Your task to perform on an android device: Show the shopping cart on newegg. Search for "logitech g pro" on newegg, select the first entry, add it to the cart, then select checkout. Image 0: 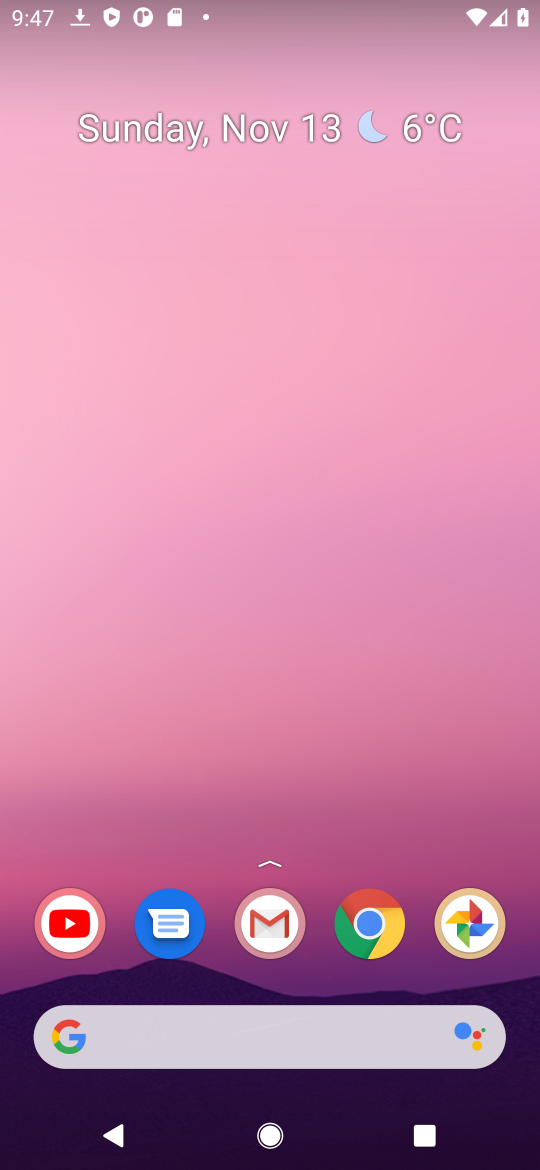
Step 0: click (367, 920)
Your task to perform on an android device: Show the shopping cart on newegg. Search for "logitech g pro" on newegg, select the first entry, add it to the cart, then select checkout. Image 1: 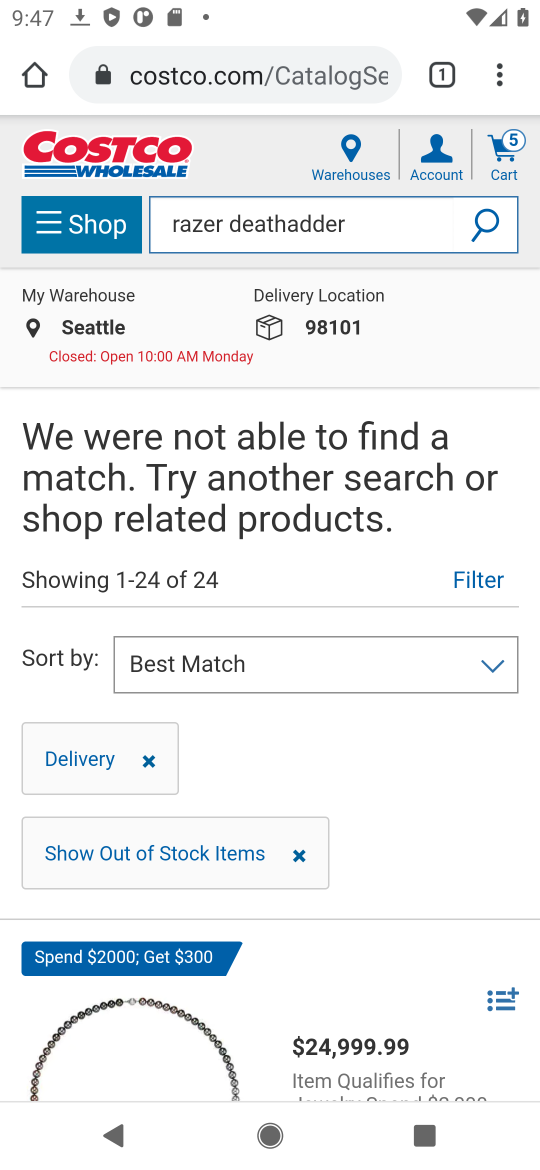
Step 1: click (270, 64)
Your task to perform on an android device: Show the shopping cart on newegg. Search for "logitech g pro" on newegg, select the first entry, add it to the cart, then select checkout. Image 2: 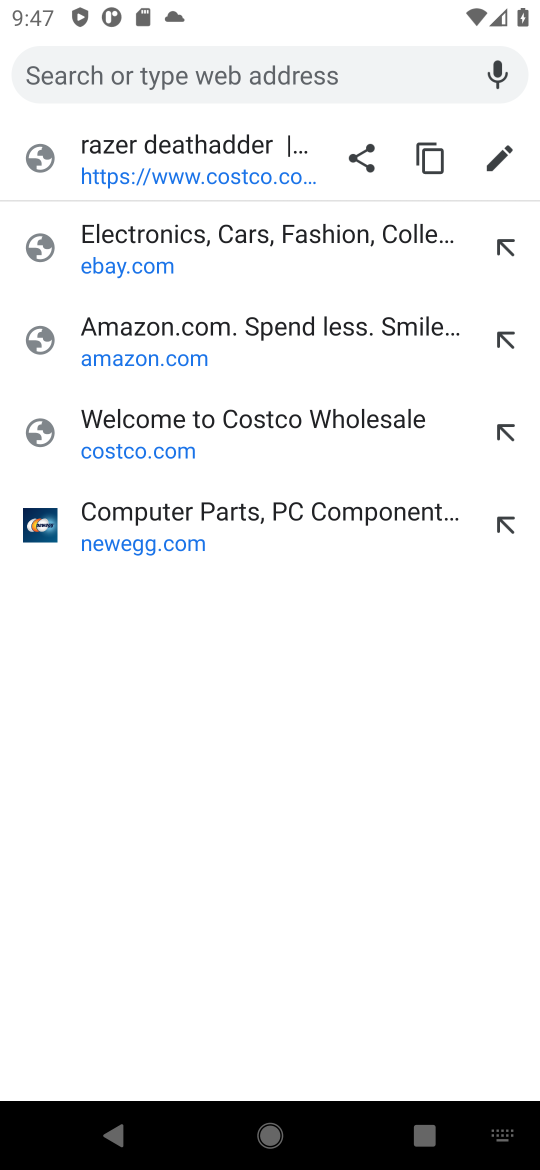
Step 2: click (265, 511)
Your task to perform on an android device: Show the shopping cart on newegg. Search for "logitech g pro" on newegg, select the first entry, add it to the cart, then select checkout. Image 3: 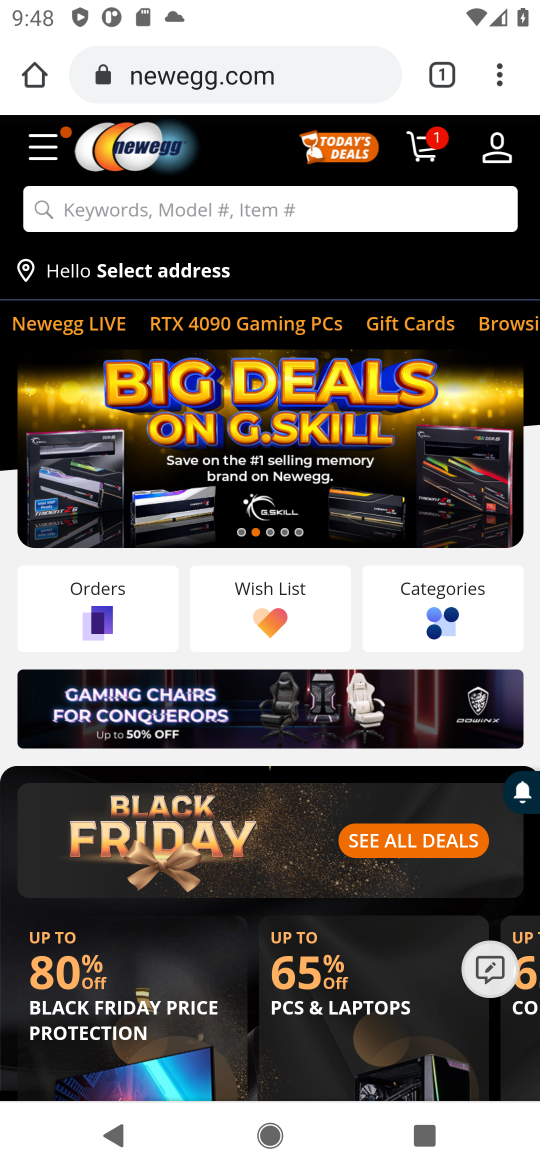
Step 3: click (184, 208)
Your task to perform on an android device: Show the shopping cart on newegg. Search for "logitech g pro" on newegg, select the first entry, add it to the cart, then select checkout. Image 4: 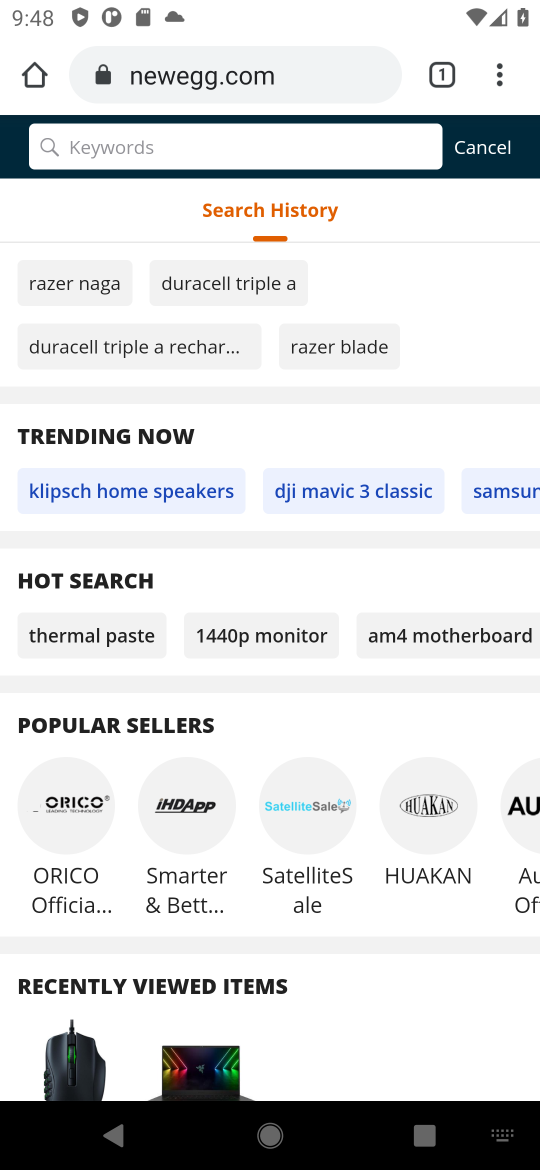
Step 4: type "logitech g pro"
Your task to perform on an android device: Show the shopping cart on newegg. Search for "logitech g pro" on newegg, select the first entry, add it to the cart, then select checkout. Image 5: 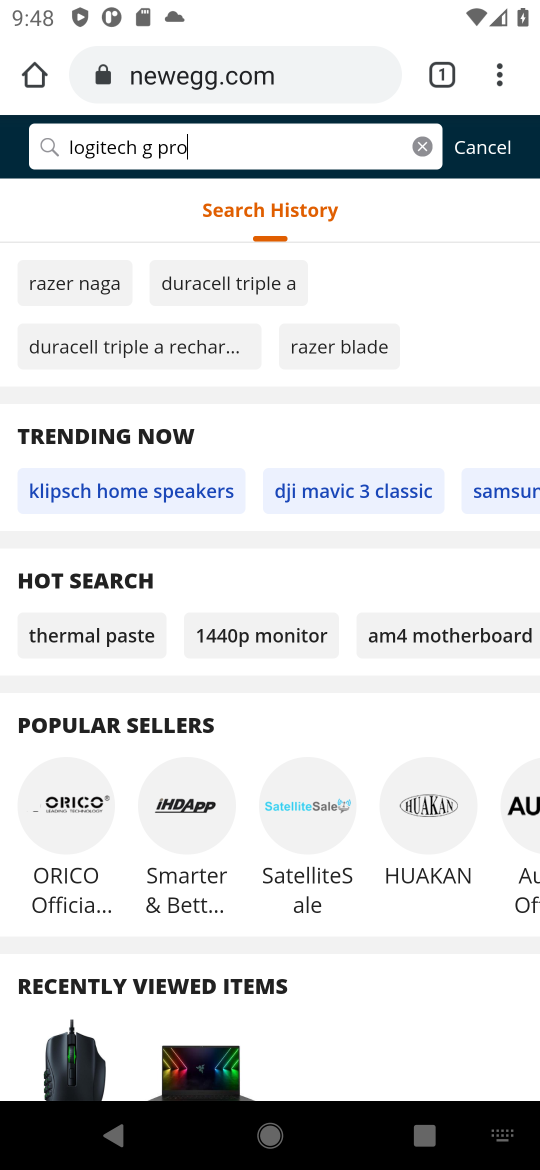
Step 5: press enter
Your task to perform on an android device: Show the shopping cart on newegg. Search for "logitech g pro" on newegg, select the first entry, add it to the cart, then select checkout. Image 6: 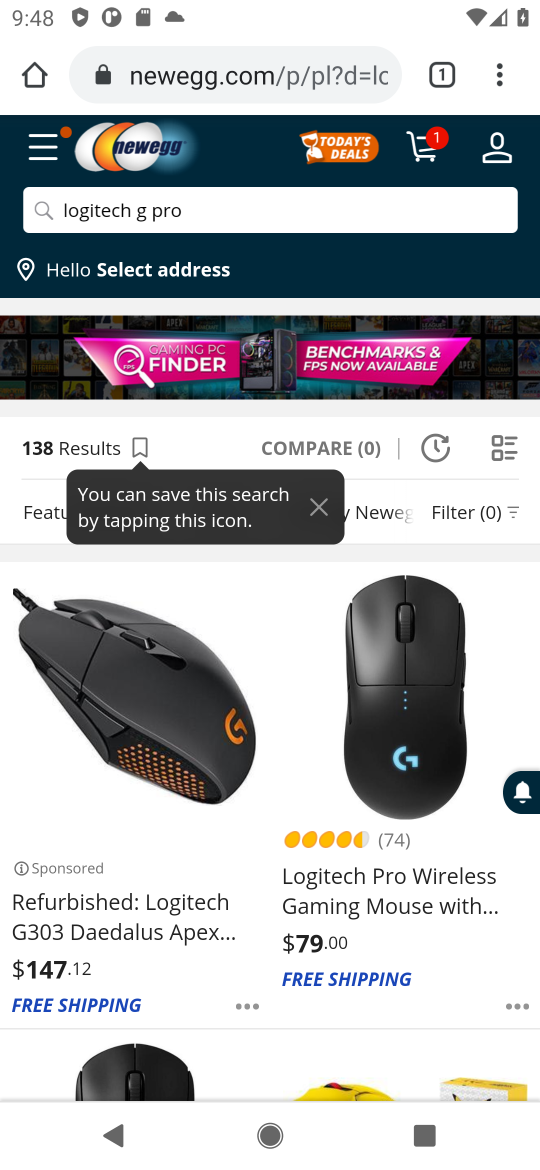
Step 6: drag from (435, 971) to (519, 453)
Your task to perform on an android device: Show the shopping cart on newegg. Search for "logitech g pro" on newegg, select the first entry, add it to the cart, then select checkout. Image 7: 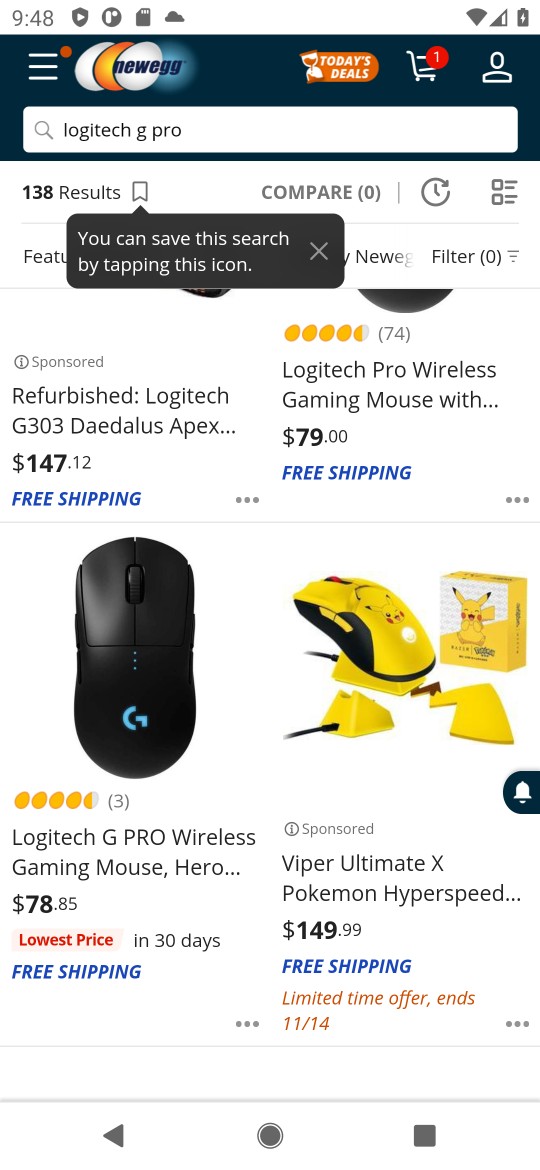
Step 7: click (124, 680)
Your task to perform on an android device: Show the shopping cart on newegg. Search for "logitech g pro" on newegg, select the first entry, add it to the cart, then select checkout. Image 8: 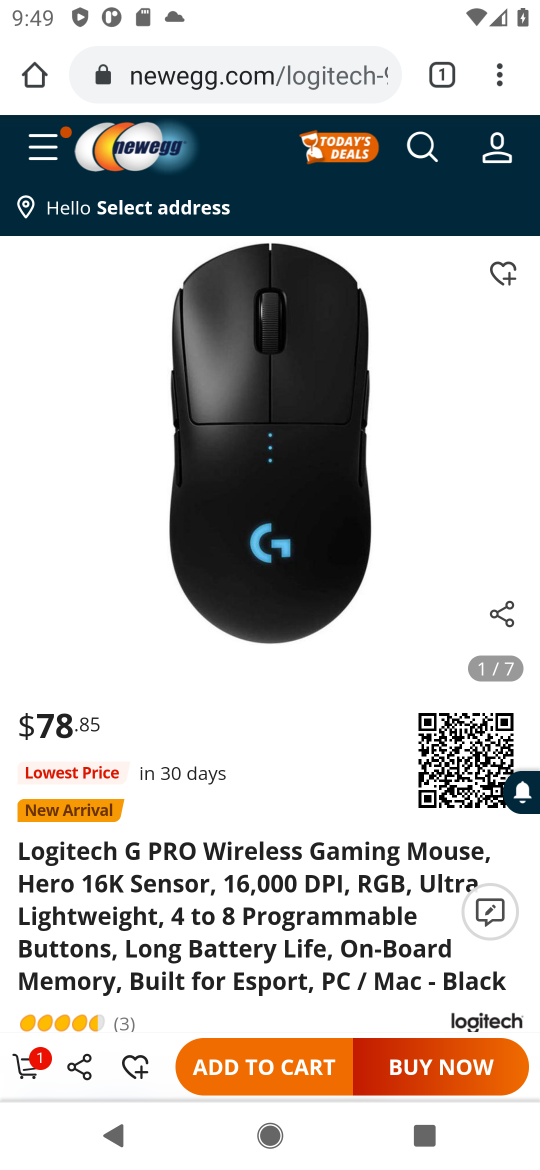
Step 8: click (250, 1065)
Your task to perform on an android device: Show the shopping cart on newegg. Search for "logitech g pro" on newegg, select the first entry, add it to the cart, then select checkout. Image 9: 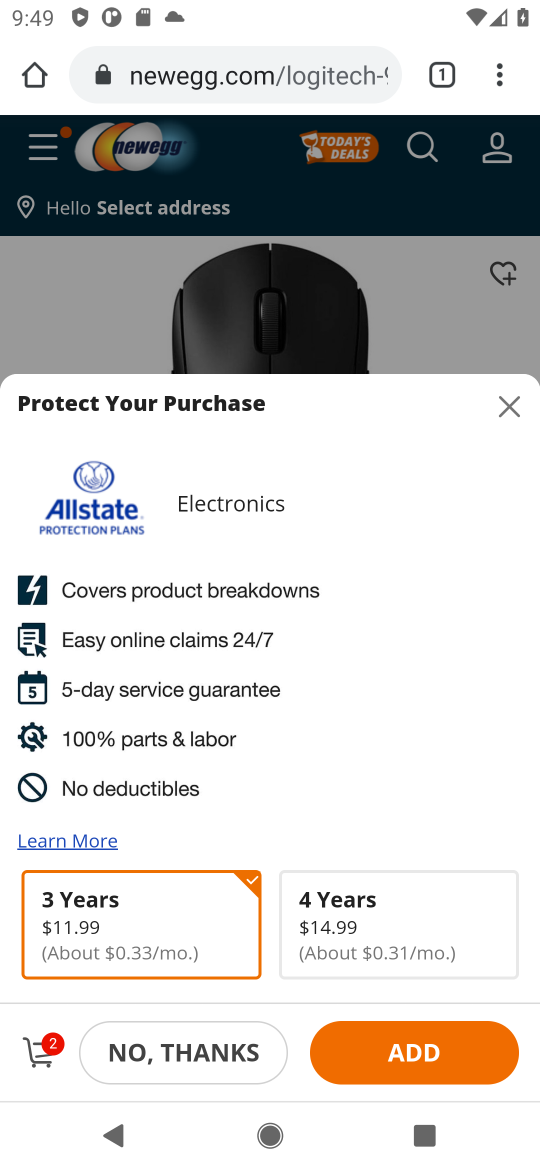
Step 9: click (510, 410)
Your task to perform on an android device: Show the shopping cart on newegg. Search for "logitech g pro" on newegg, select the first entry, add it to the cart, then select checkout. Image 10: 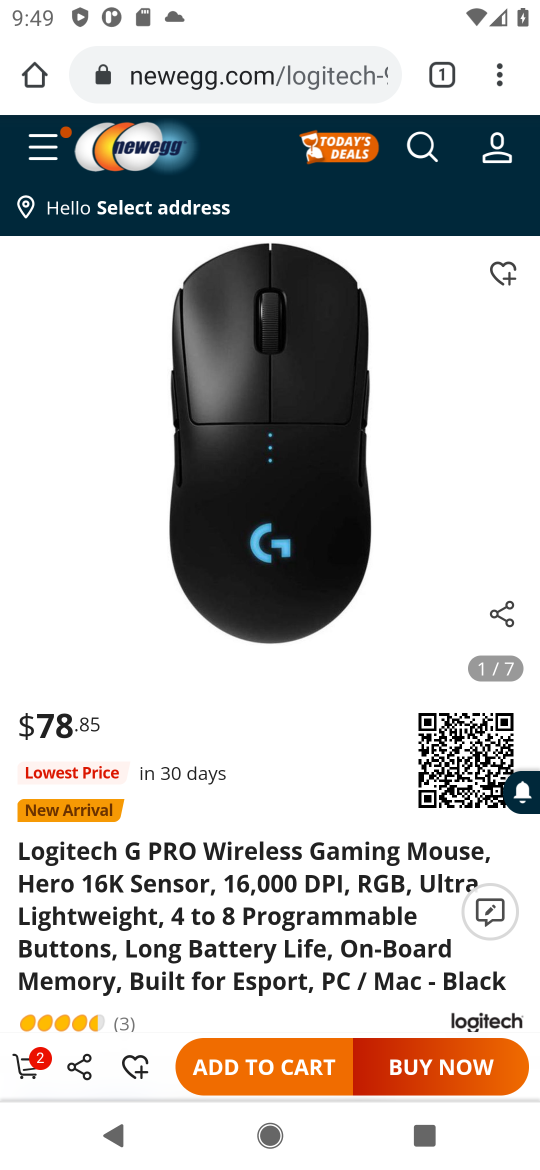
Step 10: click (41, 1067)
Your task to perform on an android device: Show the shopping cart on newegg. Search for "logitech g pro" on newegg, select the first entry, add it to the cart, then select checkout. Image 11: 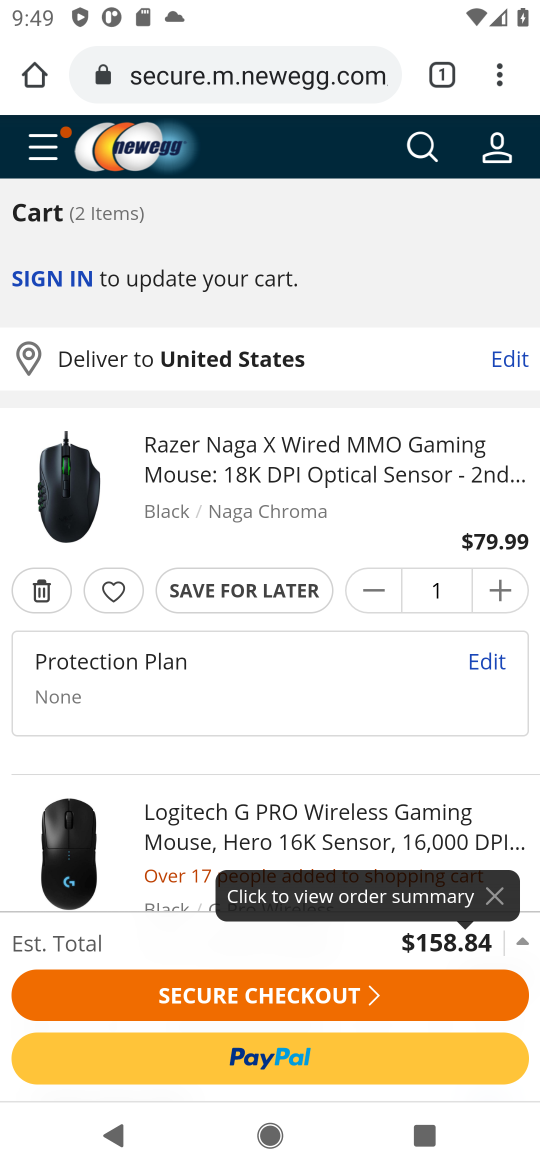
Step 11: click (290, 992)
Your task to perform on an android device: Show the shopping cart on newegg. Search for "logitech g pro" on newegg, select the first entry, add it to the cart, then select checkout. Image 12: 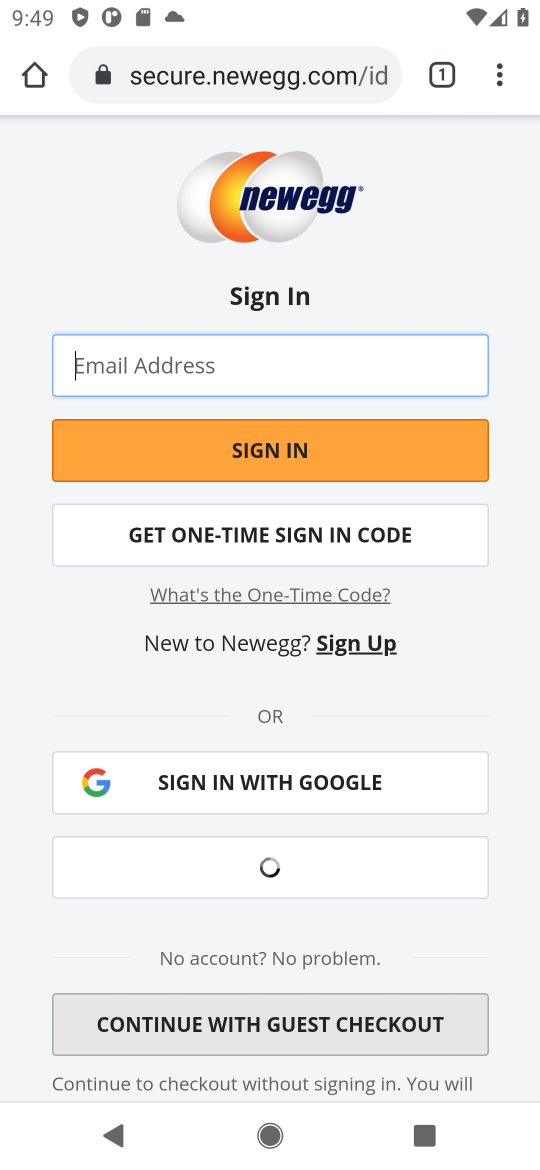
Step 12: task complete